Your task to perform on an android device: toggle location history Image 0: 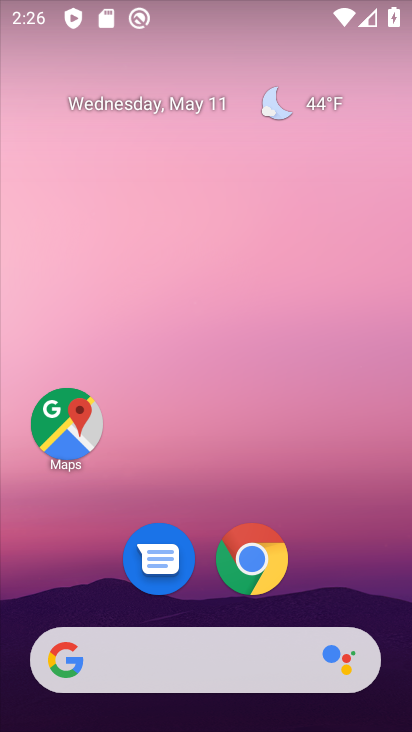
Step 0: drag from (335, 559) to (263, 118)
Your task to perform on an android device: toggle location history Image 1: 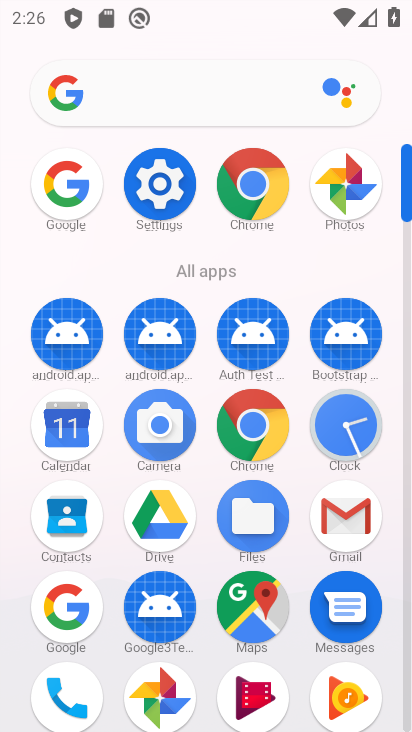
Step 1: click (166, 192)
Your task to perform on an android device: toggle location history Image 2: 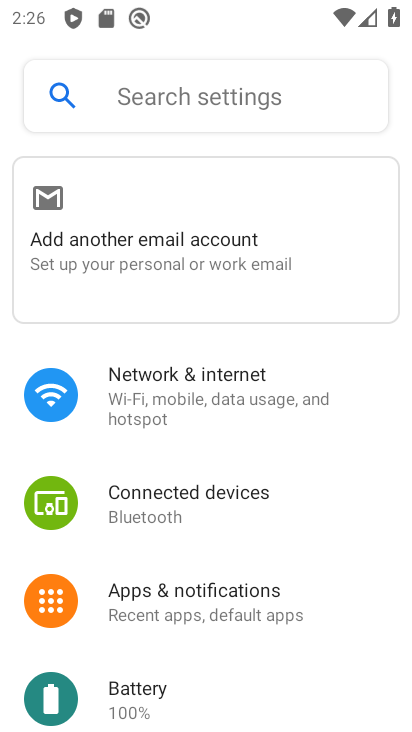
Step 2: drag from (229, 683) to (225, 195)
Your task to perform on an android device: toggle location history Image 3: 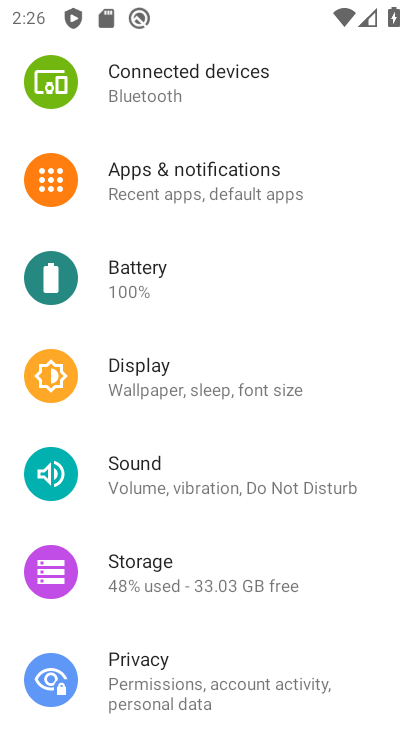
Step 3: drag from (206, 625) to (192, 197)
Your task to perform on an android device: toggle location history Image 4: 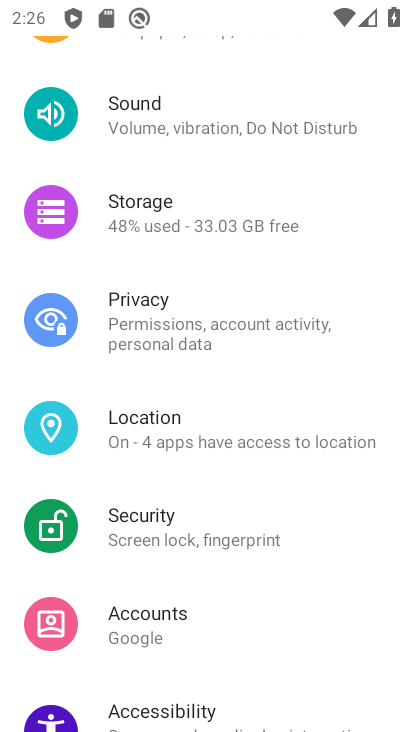
Step 4: click (188, 442)
Your task to perform on an android device: toggle location history Image 5: 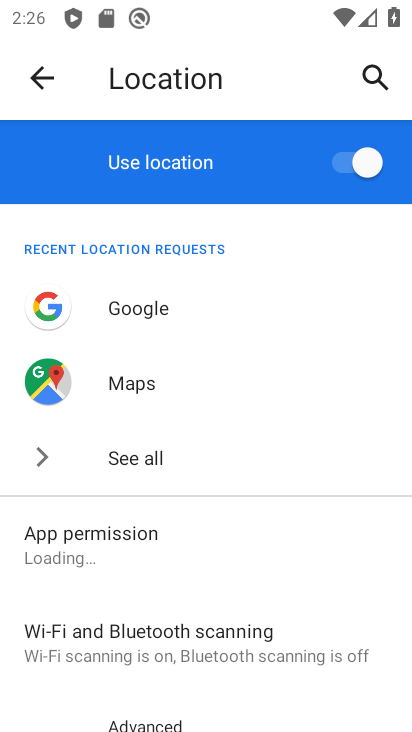
Step 5: drag from (219, 578) to (215, 287)
Your task to perform on an android device: toggle location history Image 6: 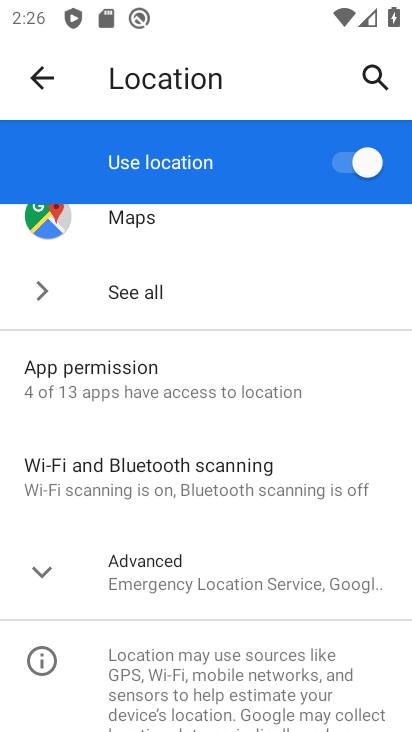
Step 6: click (149, 562)
Your task to perform on an android device: toggle location history Image 7: 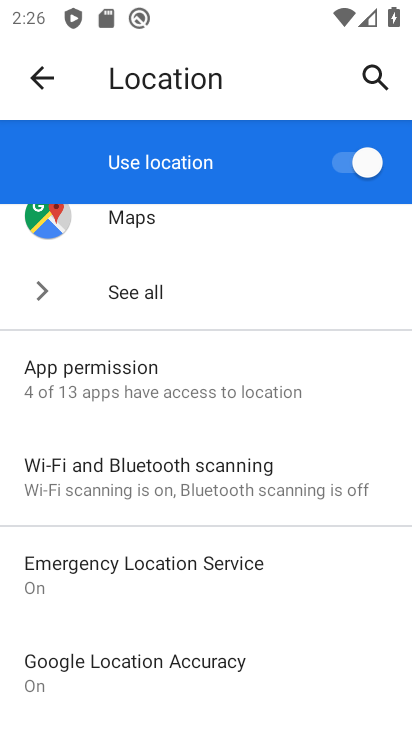
Step 7: drag from (266, 647) to (242, 350)
Your task to perform on an android device: toggle location history Image 8: 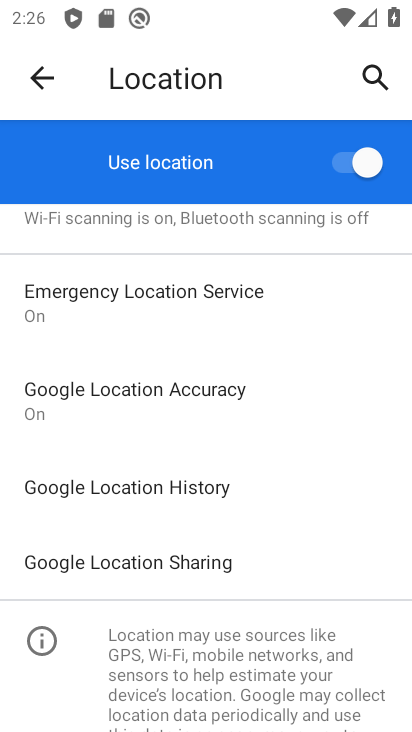
Step 8: click (194, 484)
Your task to perform on an android device: toggle location history Image 9: 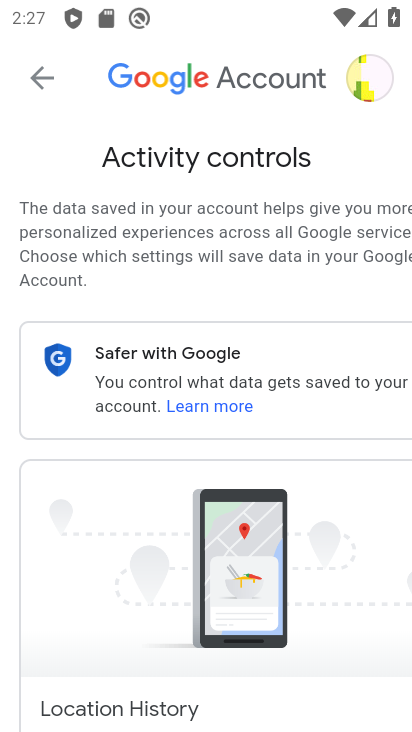
Step 9: drag from (143, 609) to (152, 217)
Your task to perform on an android device: toggle location history Image 10: 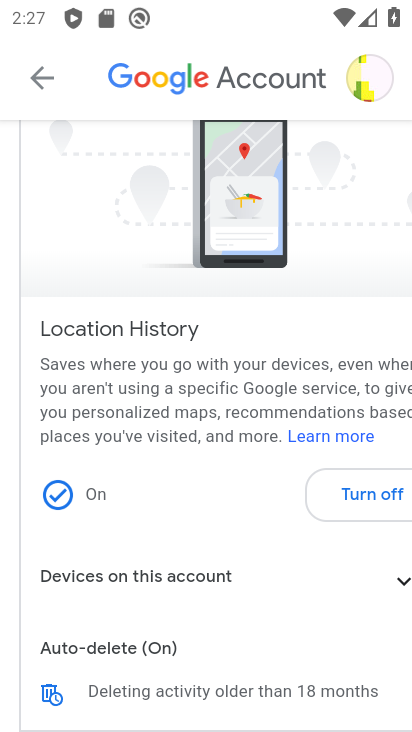
Step 10: click (361, 499)
Your task to perform on an android device: toggle location history Image 11: 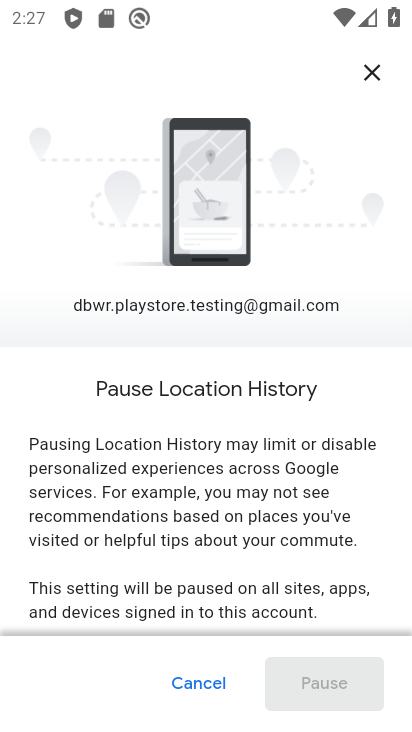
Step 11: drag from (205, 538) to (189, 110)
Your task to perform on an android device: toggle location history Image 12: 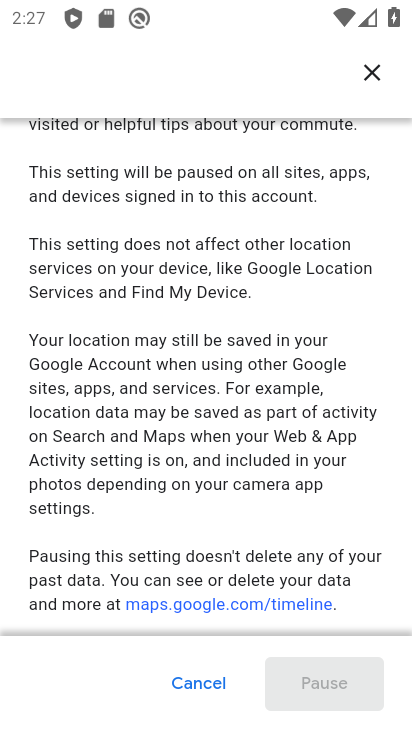
Step 12: drag from (203, 495) to (204, 80)
Your task to perform on an android device: toggle location history Image 13: 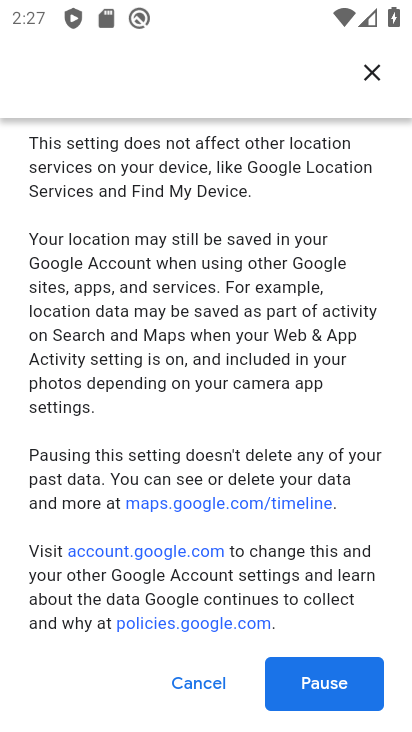
Step 13: click (316, 670)
Your task to perform on an android device: toggle location history Image 14: 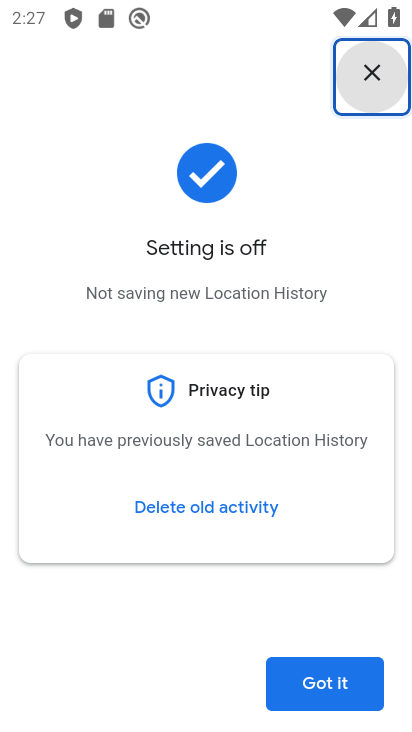
Step 14: click (331, 683)
Your task to perform on an android device: toggle location history Image 15: 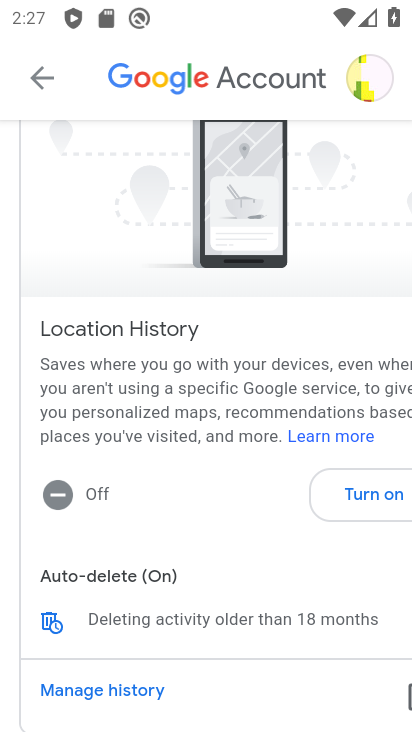
Step 15: task complete